Your task to perform on an android device: empty trash in the gmail app Image 0: 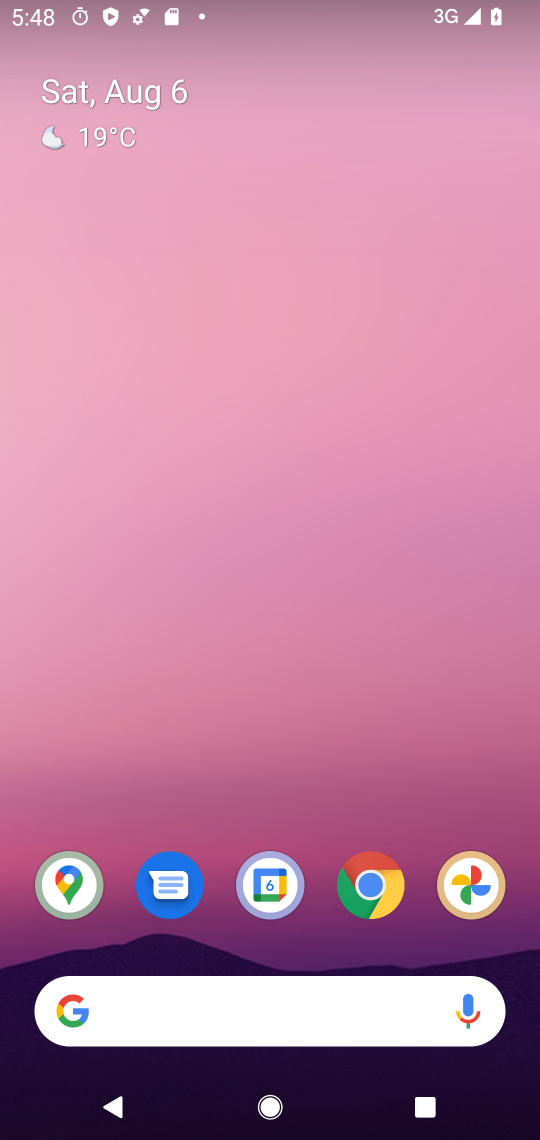
Step 0: drag from (428, 918) to (245, 131)
Your task to perform on an android device: empty trash in the gmail app Image 1: 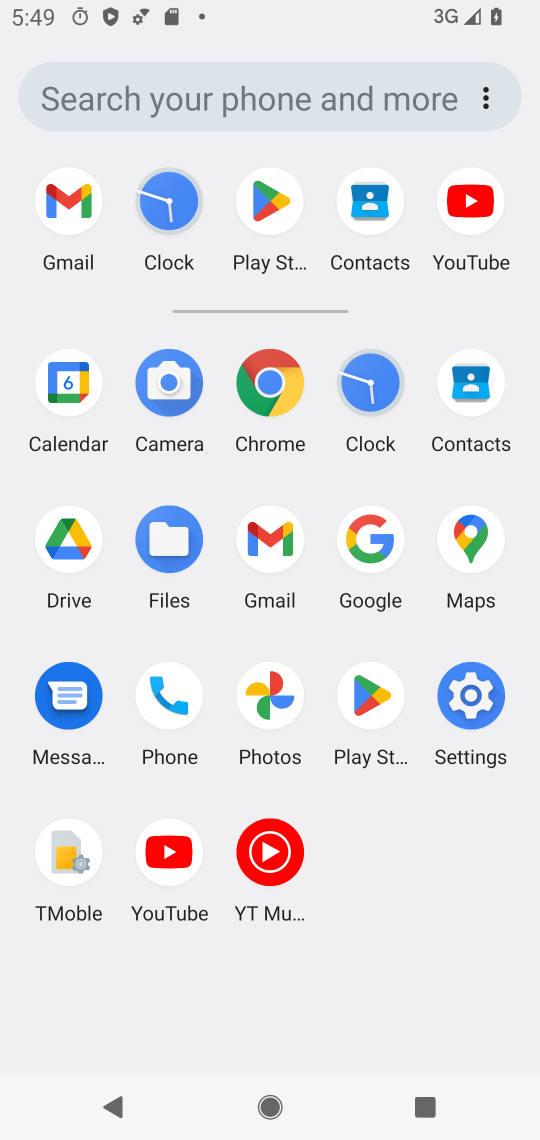
Step 1: click (252, 534)
Your task to perform on an android device: empty trash in the gmail app Image 2: 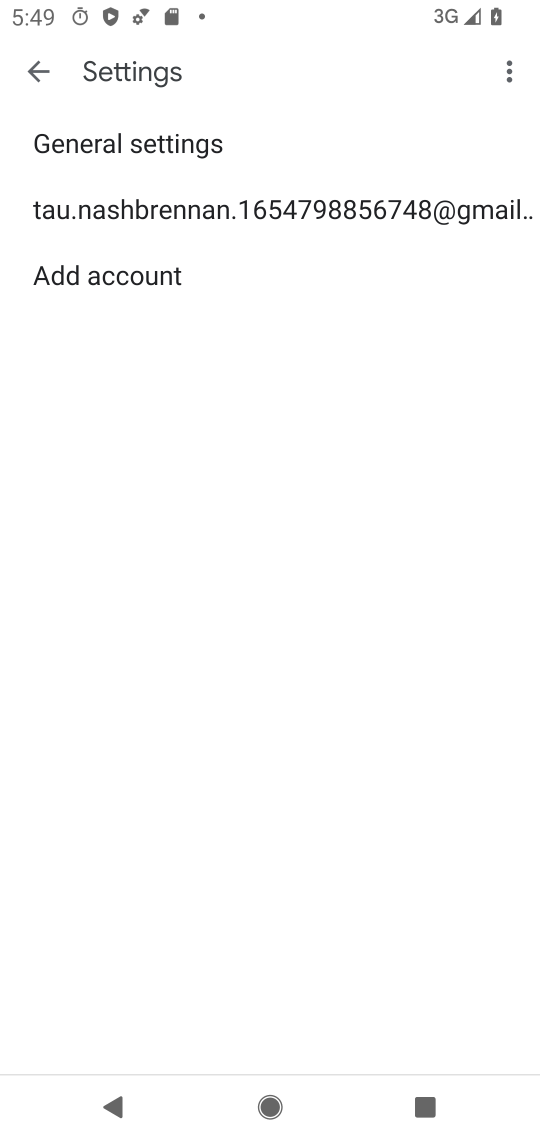
Step 2: press back button
Your task to perform on an android device: empty trash in the gmail app Image 3: 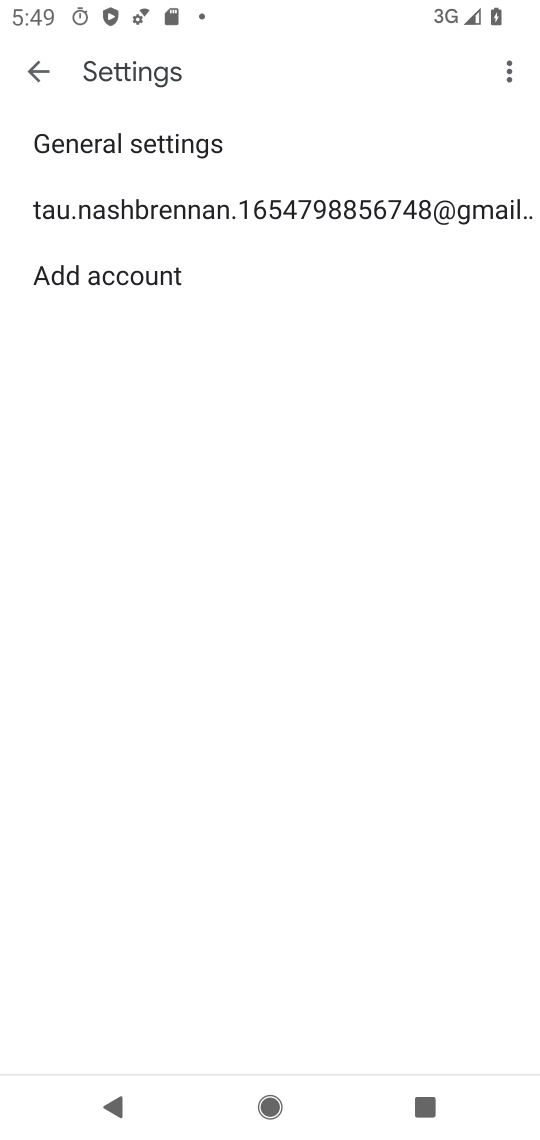
Step 3: press back button
Your task to perform on an android device: empty trash in the gmail app Image 4: 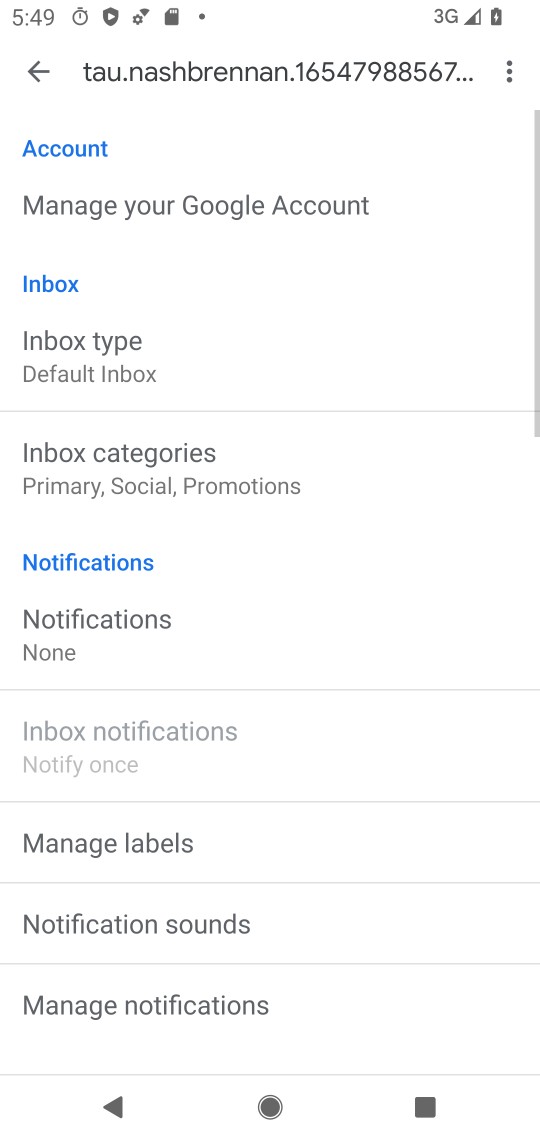
Step 4: press back button
Your task to perform on an android device: empty trash in the gmail app Image 5: 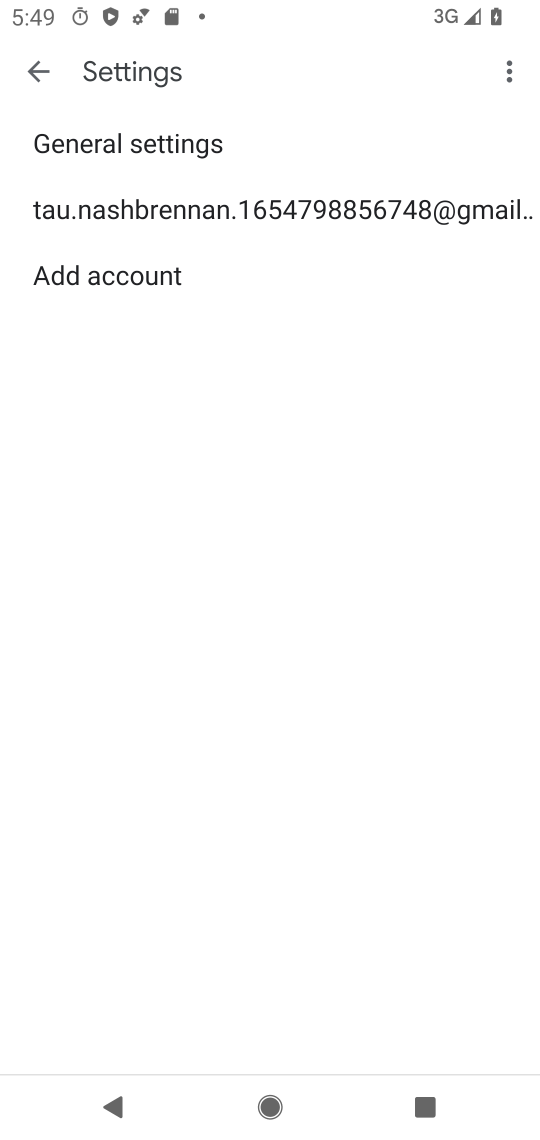
Step 5: press back button
Your task to perform on an android device: empty trash in the gmail app Image 6: 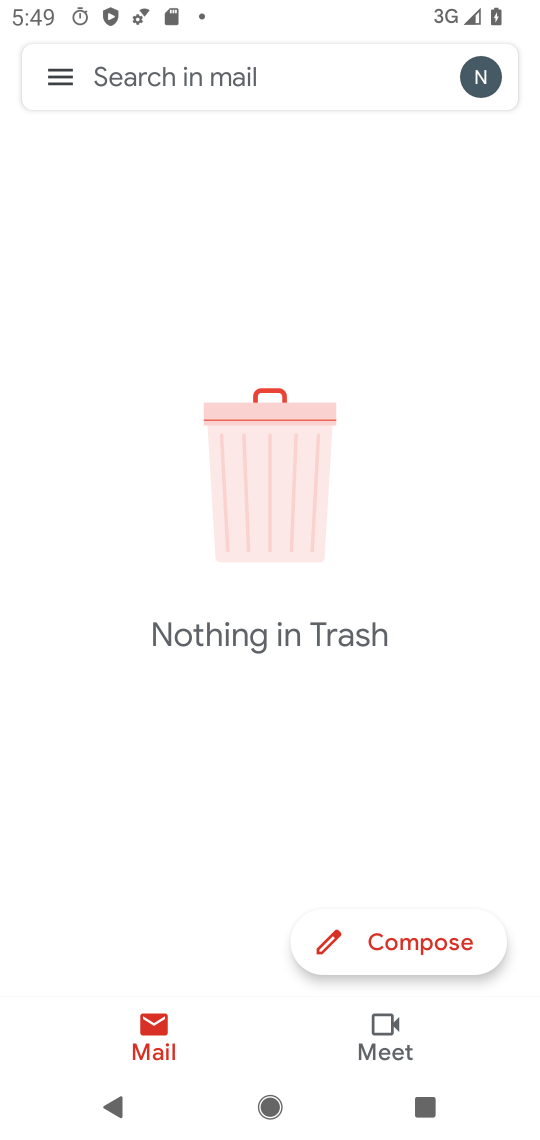
Step 6: click (63, 66)
Your task to perform on an android device: empty trash in the gmail app Image 7: 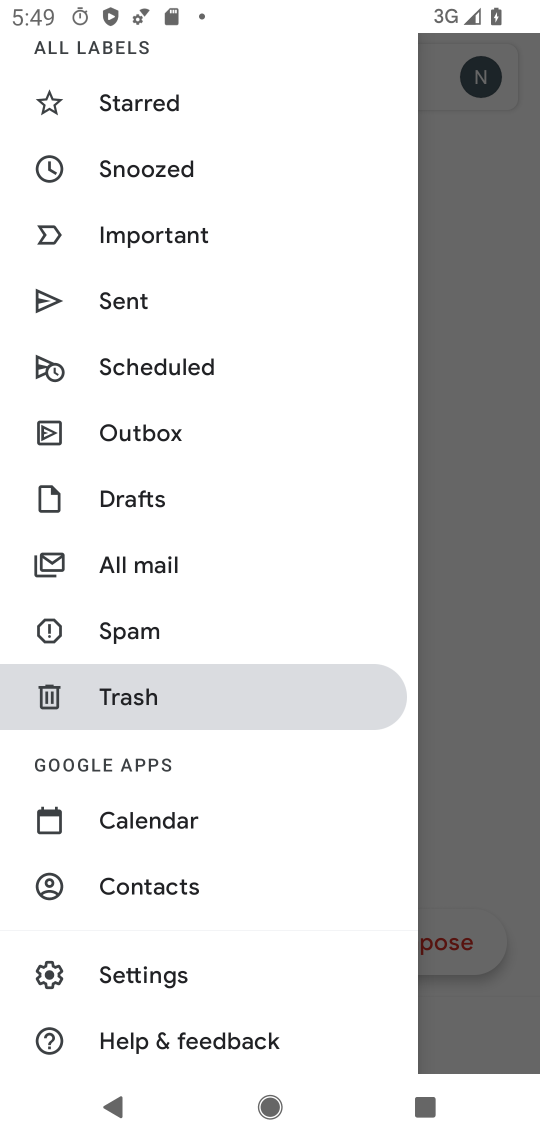
Step 7: click (153, 705)
Your task to perform on an android device: empty trash in the gmail app Image 8: 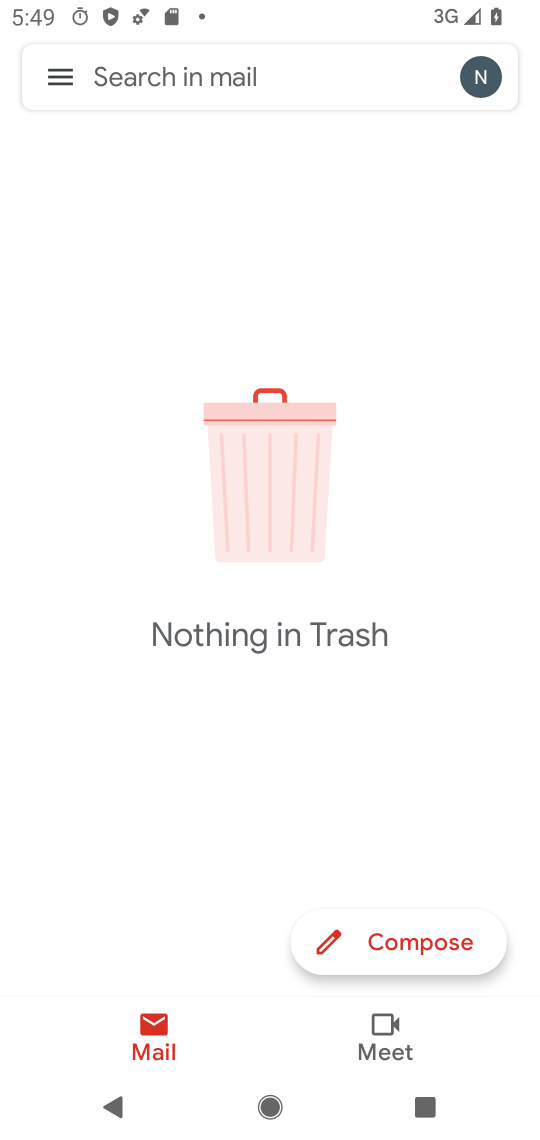
Step 8: task complete